Your task to perform on an android device: move a message to another label in the gmail app Image 0: 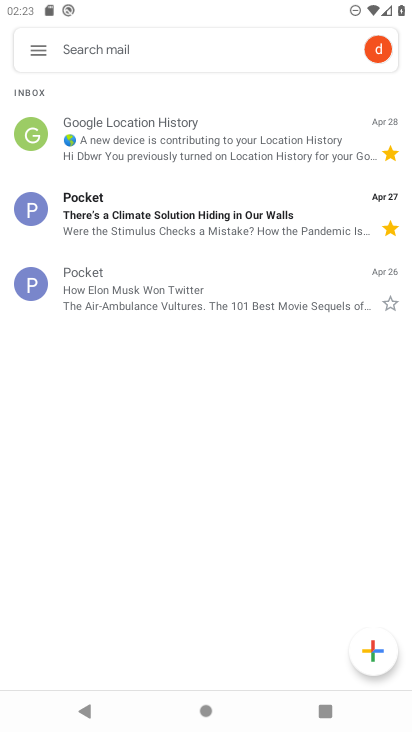
Step 0: drag from (29, 212) to (159, 577)
Your task to perform on an android device: move a message to another label in the gmail app Image 1: 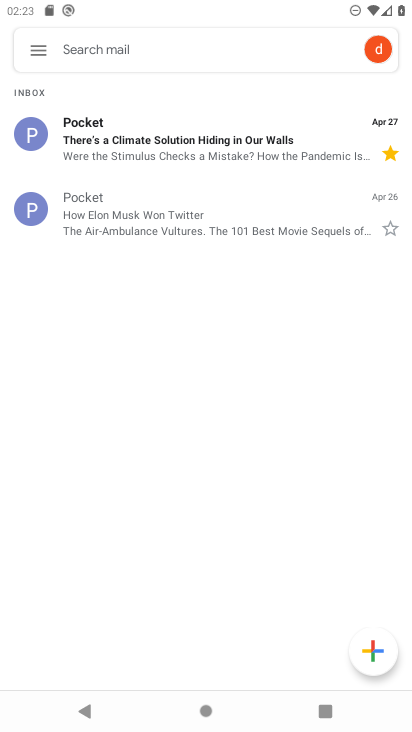
Step 1: click (39, 216)
Your task to perform on an android device: move a message to another label in the gmail app Image 2: 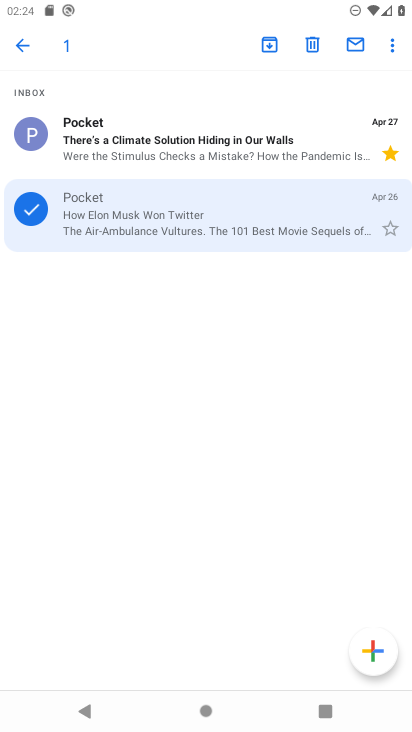
Step 2: click (388, 34)
Your task to perform on an android device: move a message to another label in the gmail app Image 3: 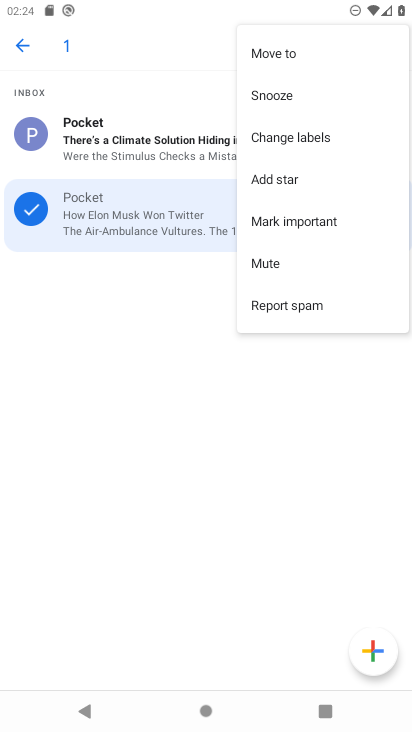
Step 3: click (299, 139)
Your task to perform on an android device: move a message to another label in the gmail app Image 4: 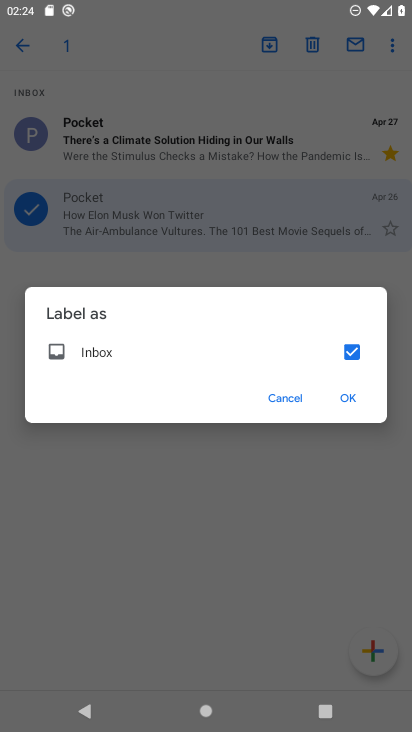
Step 4: click (364, 372)
Your task to perform on an android device: move a message to another label in the gmail app Image 5: 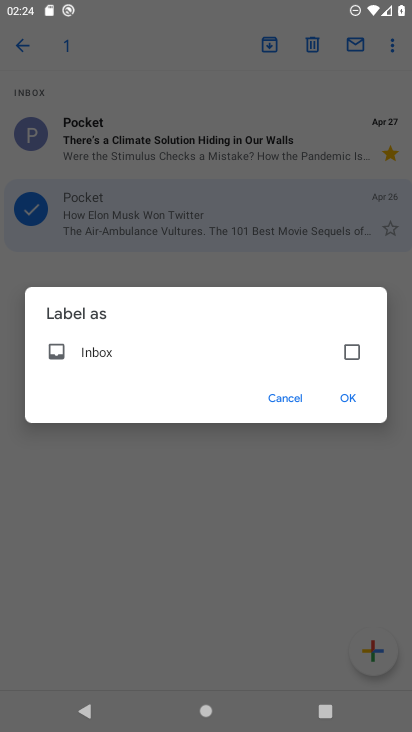
Step 5: task complete